Your task to perform on an android device: check out phone information Image 0: 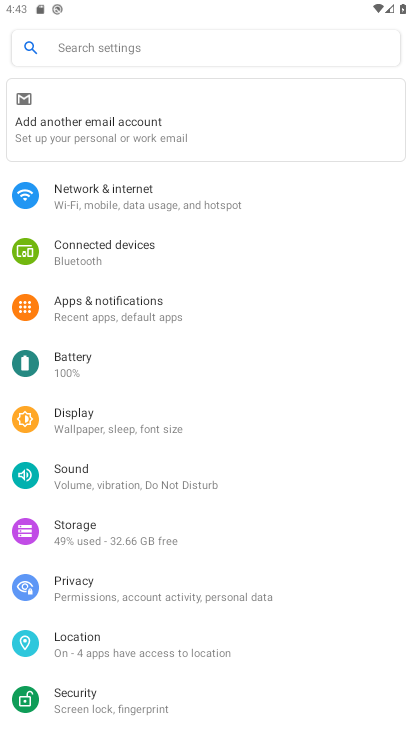
Step 0: drag from (239, 643) to (216, 169)
Your task to perform on an android device: check out phone information Image 1: 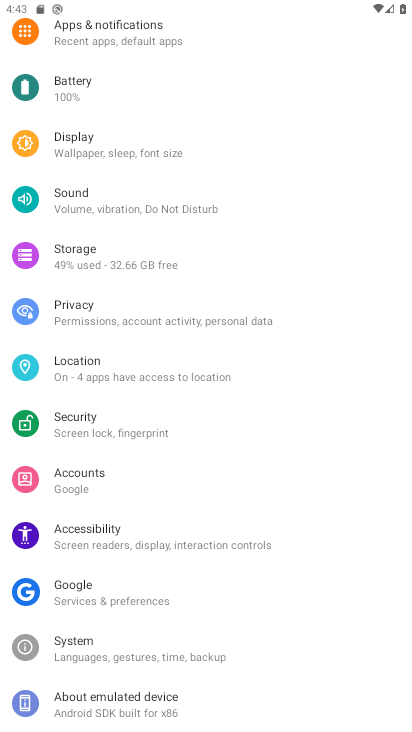
Step 1: click (159, 691)
Your task to perform on an android device: check out phone information Image 2: 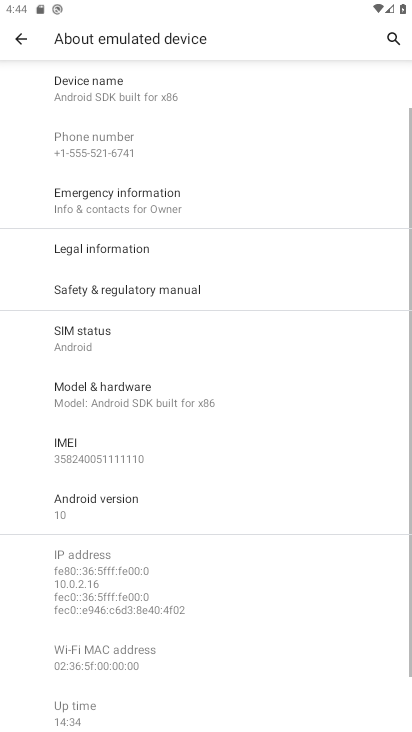
Step 2: task complete